Your task to perform on an android device: Go to ESPN.com Image 0: 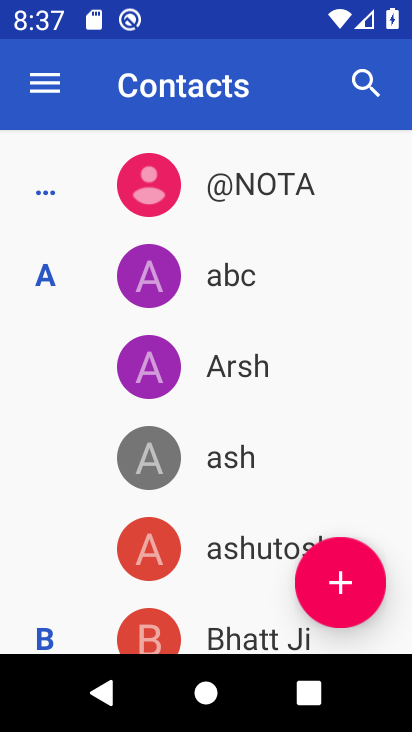
Step 0: press home button
Your task to perform on an android device: Go to ESPN.com Image 1: 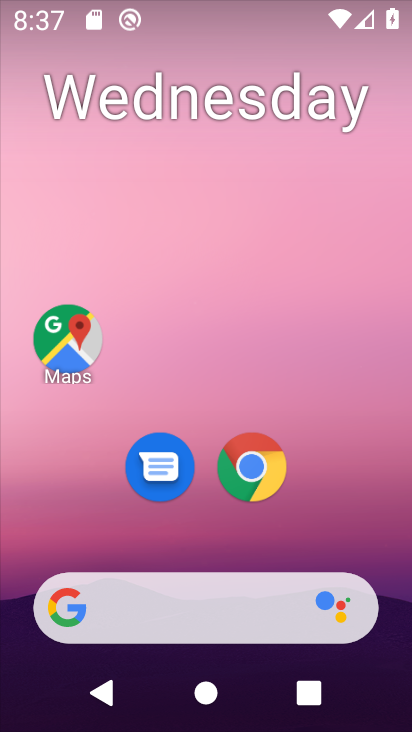
Step 1: click (260, 479)
Your task to perform on an android device: Go to ESPN.com Image 2: 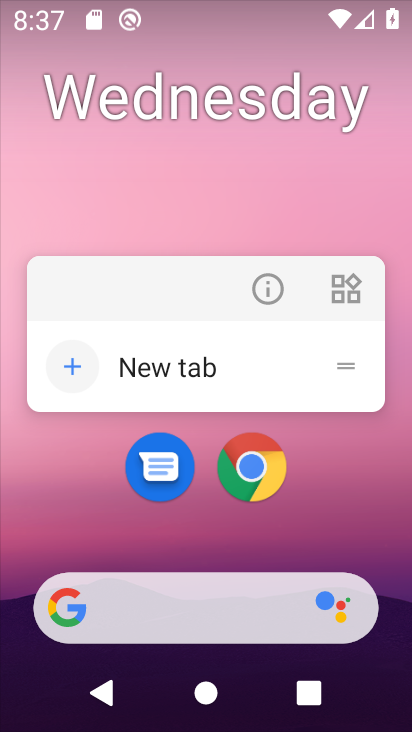
Step 2: click (260, 476)
Your task to perform on an android device: Go to ESPN.com Image 3: 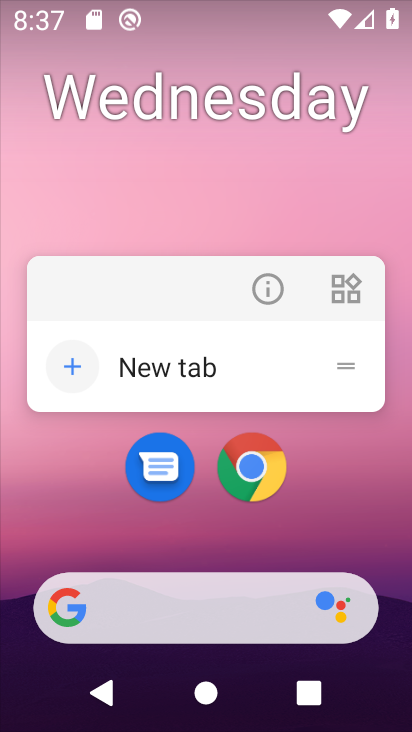
Step 3: click (251, 463)
Your task to perform on an android device: Go to ESPN.com Image 4: 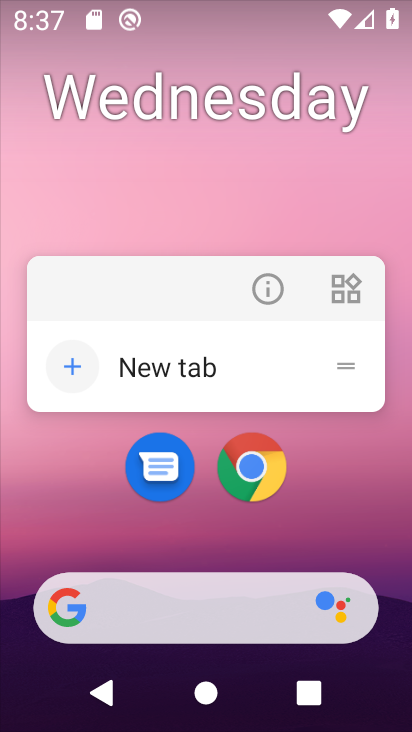
Step 4: click (252, 462)
Your task to perform on an android device: Go to ESPN.com Image 5: 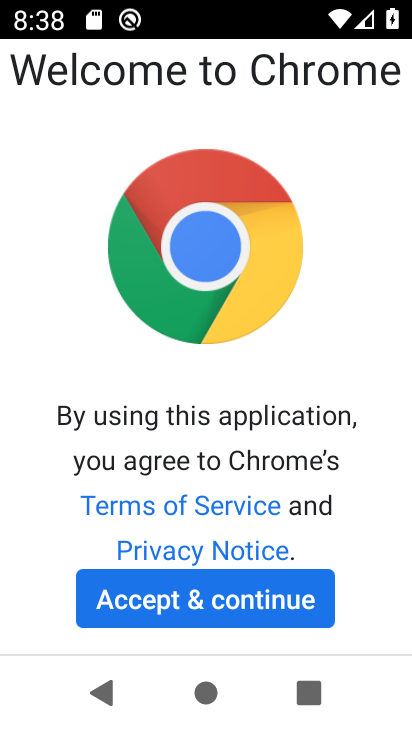
Step 5: click (268, 588)
Your task to perform on an android device: Go to ESPN.com Image 6: 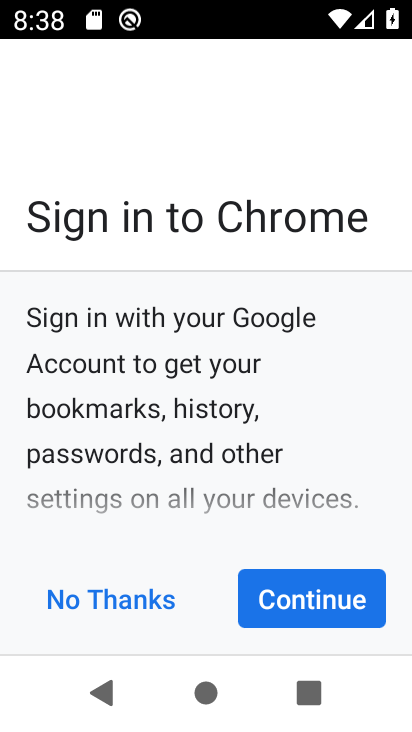
Step 6: click (108, 604)
Your task to perform on an android device: Go to ESPN.com Image 7: 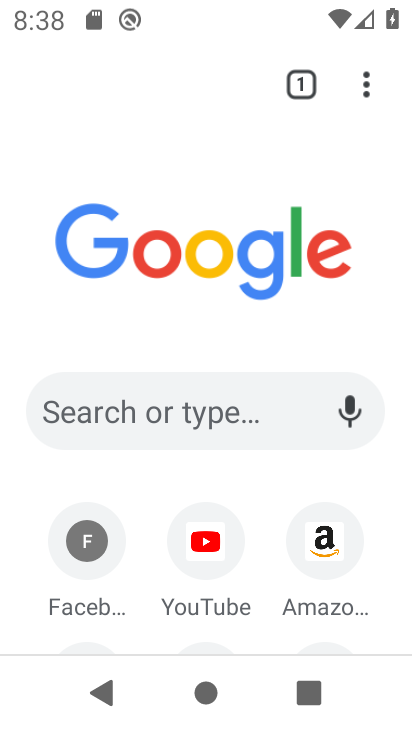
Step 7: click (187, 414)
Your task to perform on an android device: Go to ESPN.com Image 8: 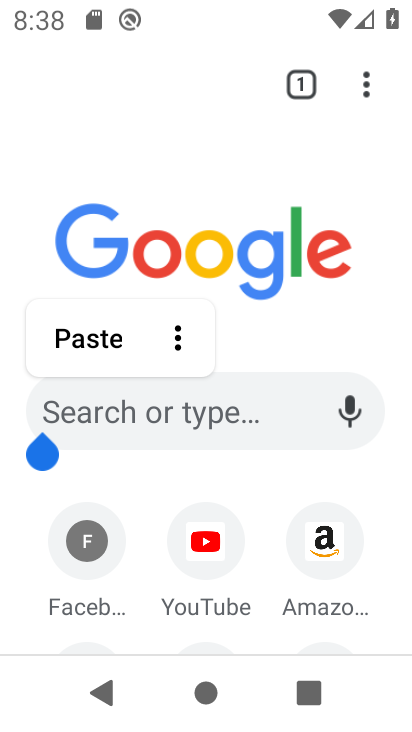
Step 8: click (187, 414)
Your task to perform on an android device: Go to ESPN.com Image 9: 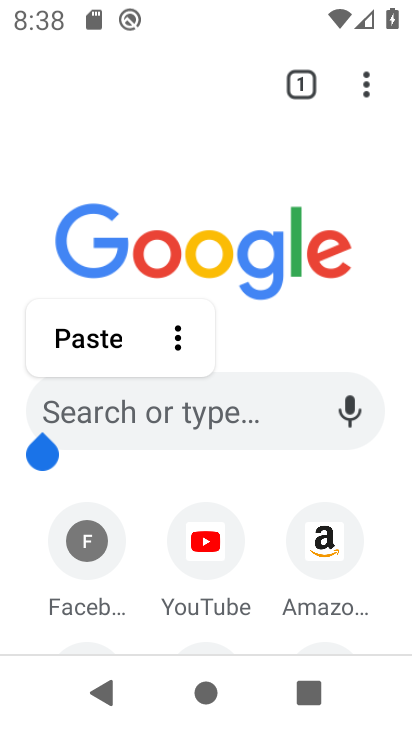
Step 9: click (161, 409)
Your task to perform on an android device: Go to ESPN.com Image 10: 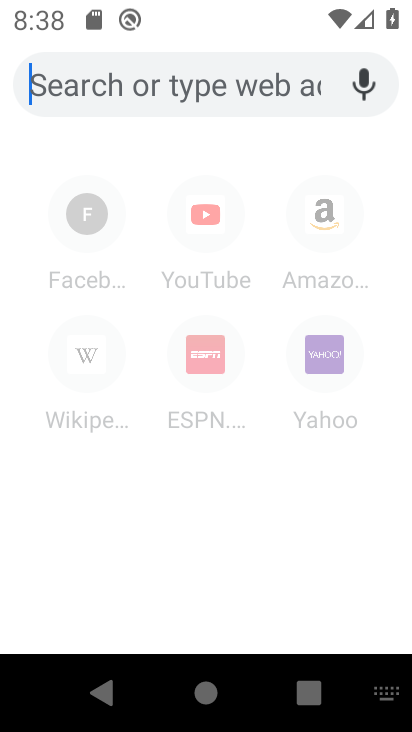
Step 10: type "espn.com"
Your task to perform on an android device: Go to ESPN.com Image 11: 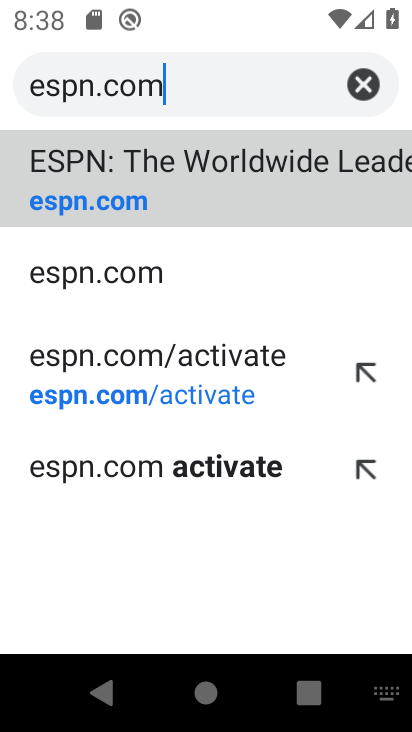
Step 11: click (89, 275)
Your task to perform on an android device: Go to ESPN.com Image 12: 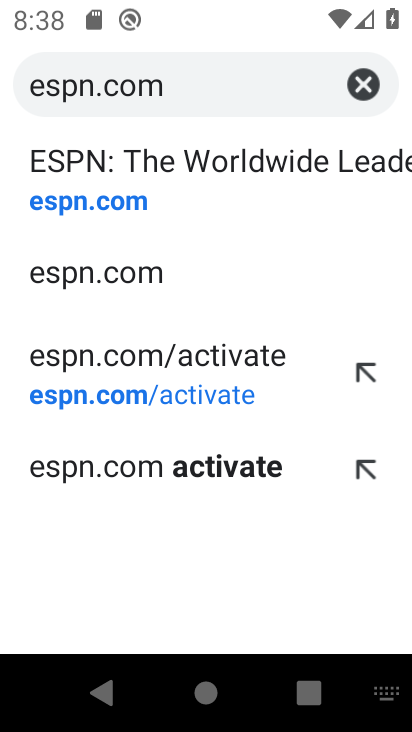
Step 12: click (89, 275)
Your task to perform on an android device: Go to ESPN.com Image 13: 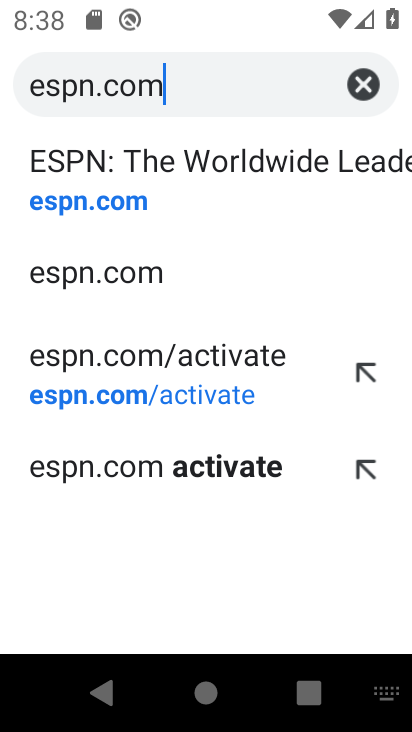
Step 13: click (122, 268)
Your task to perform on an android device: Go to ESPN.com Image 14: 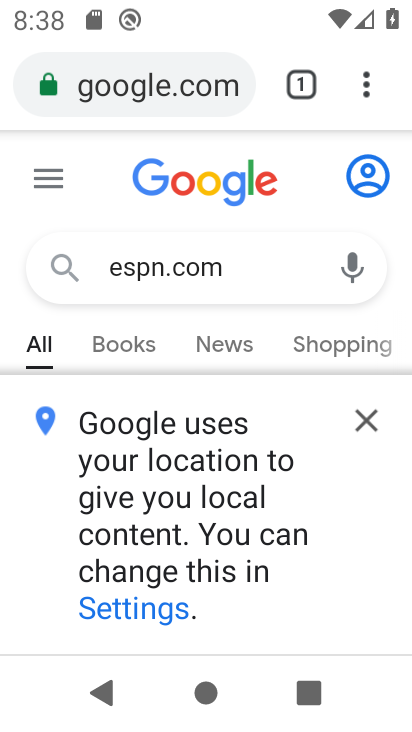
Step 14: click (357, 418)
Your task to perform on an android device: Go to ESPN.com Image 15: 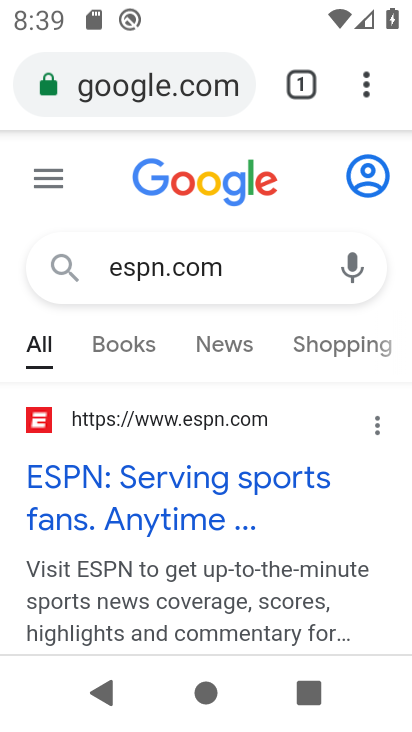
Step 15: click (190, 484)
Your task to perform on an android device: Go to ESPN.com Image 16: 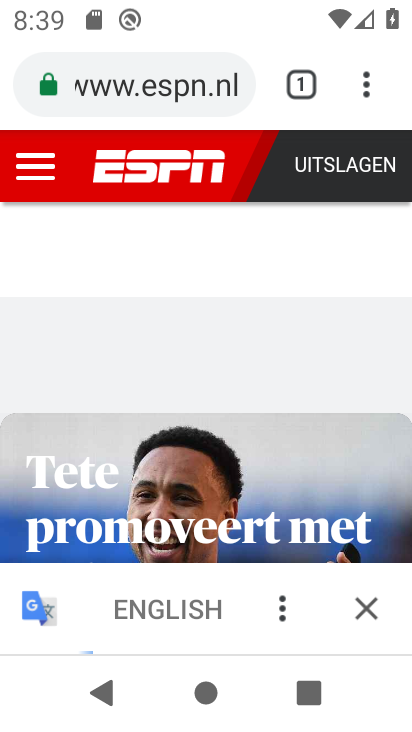
Step 16: task complete